Your task to perform on an android device: Open eBay Image 0: 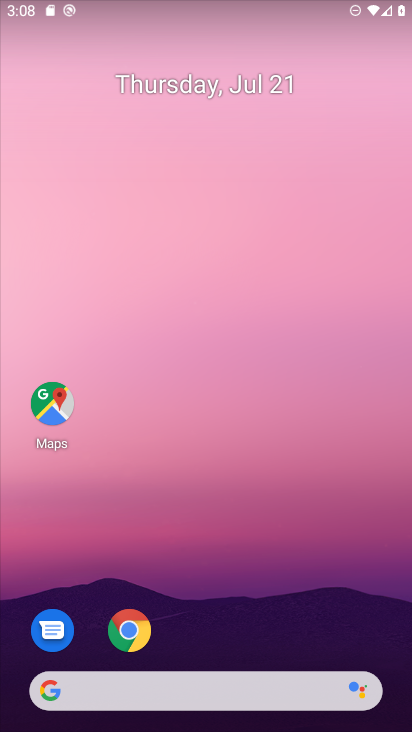
Step 0: click (133, 631)
Your task to perform on an android device: Open eBay Image 1: 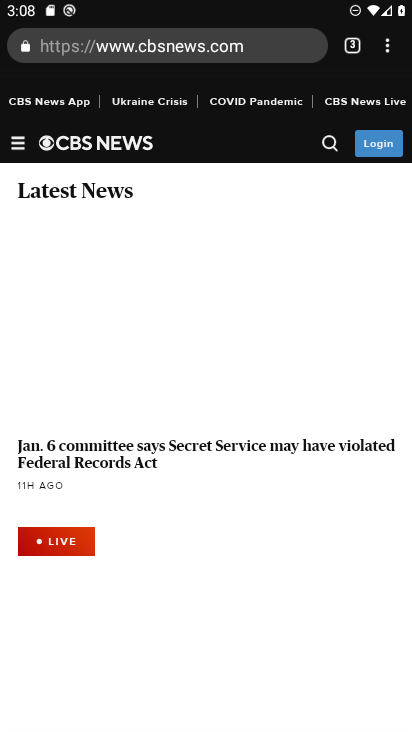
Step 1: click (350, 46)
Your task to perform on an android device: Open eBay Image 2: 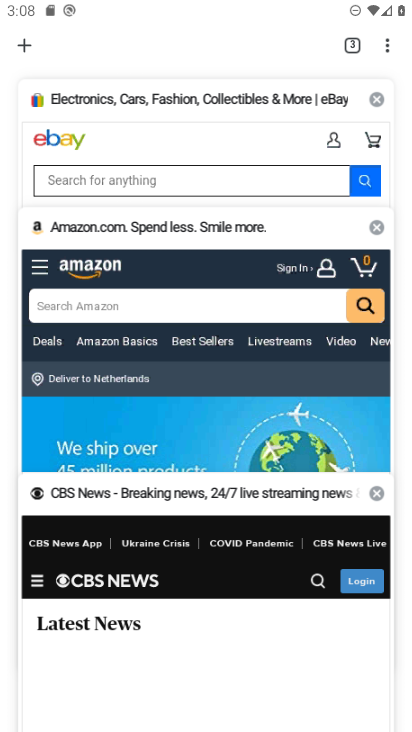
Step 2: click (84, 104)
Your task to perform on an android device: Open eBay Image 3: 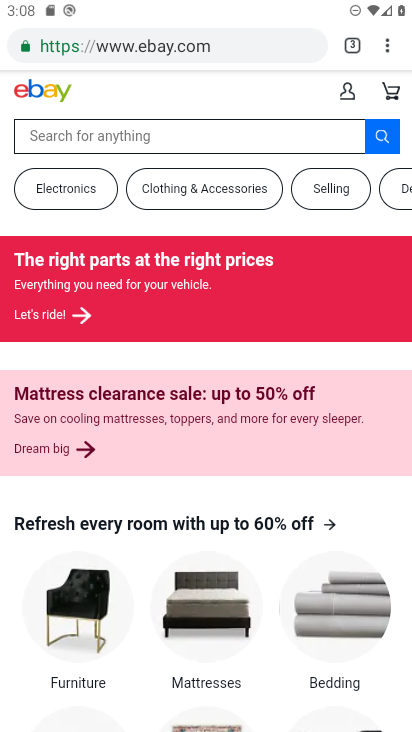
Step 3: task complete